Your task to perform on an android device: Open notification settings Image 0: 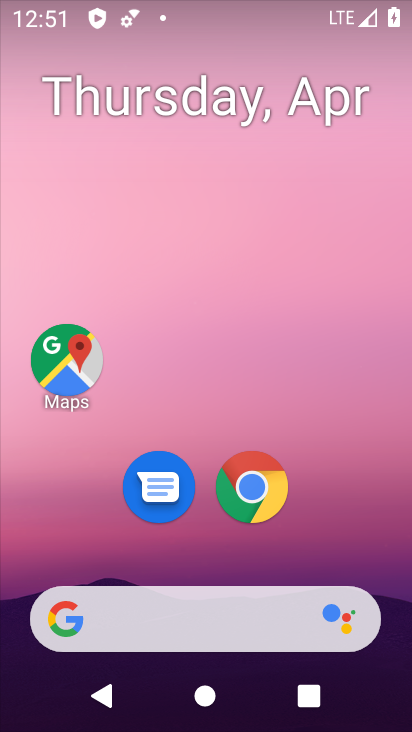
Step 0: drag from (375, 526) to (354, 141)
Your task to perform on an android device: Open notification settings Image 1: 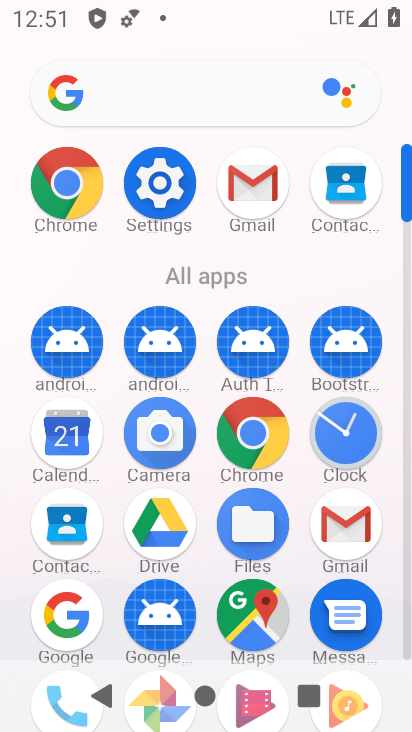
Step 1: click (172, 199)
Your task to perform on an android device: Open notification settings Image 2: 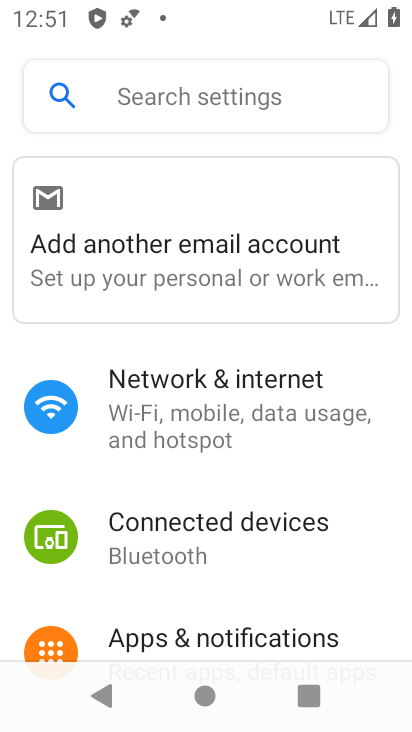
Step 2: click (226, 633)
Your task to perform on an android device: Open notification settings Image 3: 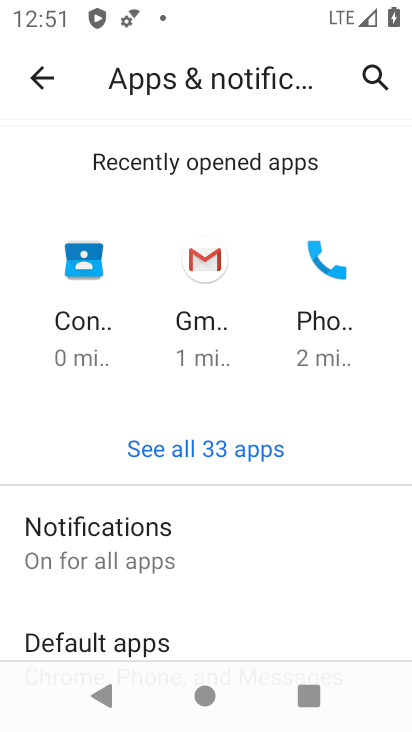
Step 3: click (150, 557)
Your task to perform on an android device: Open notification settings Image 4: 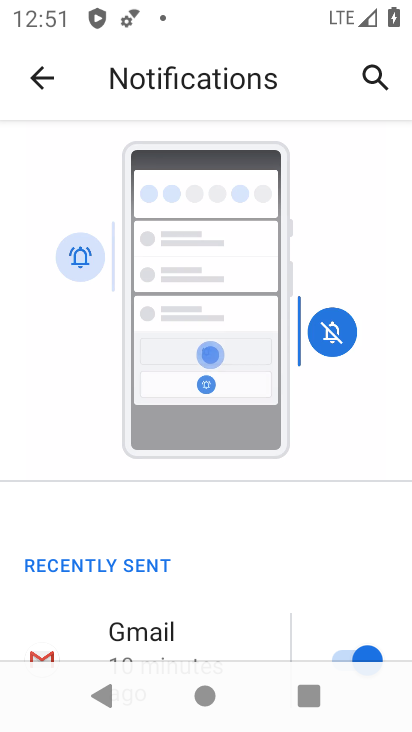
Step 4: task complete